Your task to perform on an android device: Search for the best way to get rid of a cold Image 0: 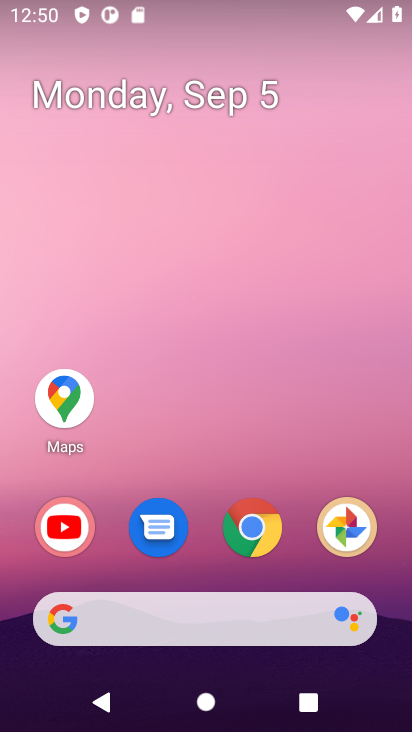
Step 0: drag from (185, 114) to (202, 7)
Your task to perform on an android device: Search for the best way to get rid of a cold Image 1: 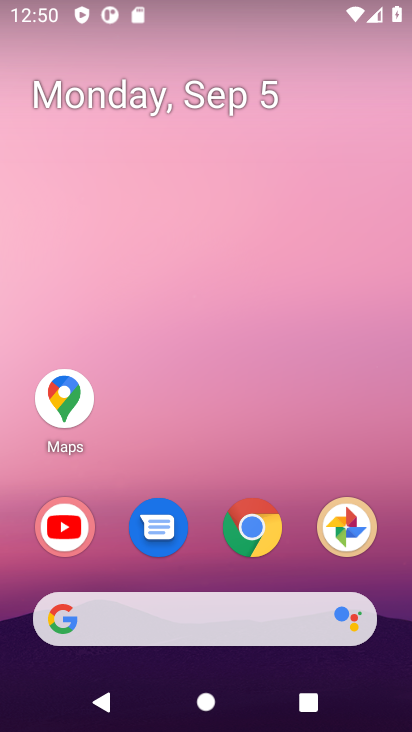
Step 1: click (273, 520)
Your task to perform on an android device: Search for the best way to get rid of a cold Image 2: 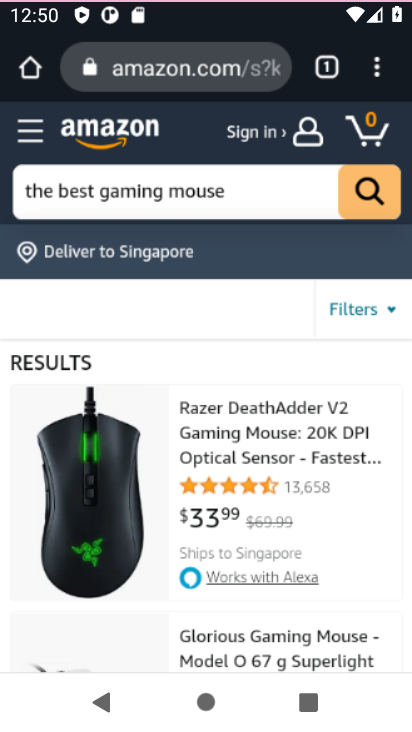
Step 2: click (138, 63)
Your task to perform on an android device: Search for the best way to get rid of a cold Image 3: 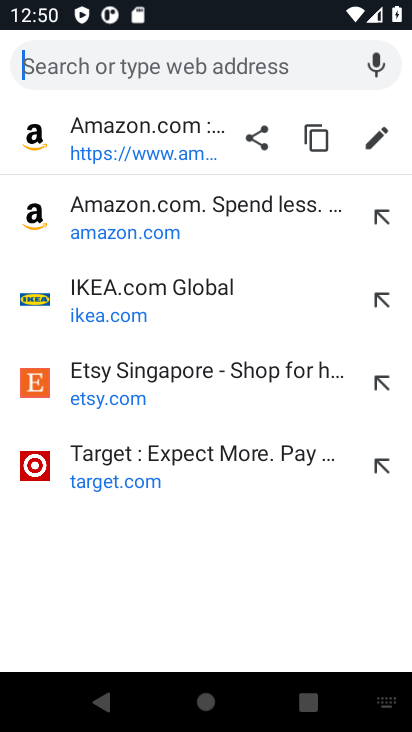
Step 3: type "the best way to get rid of a cold"
Your task to perform on an android device: Search for the best way to get rid of a cold Image 4: 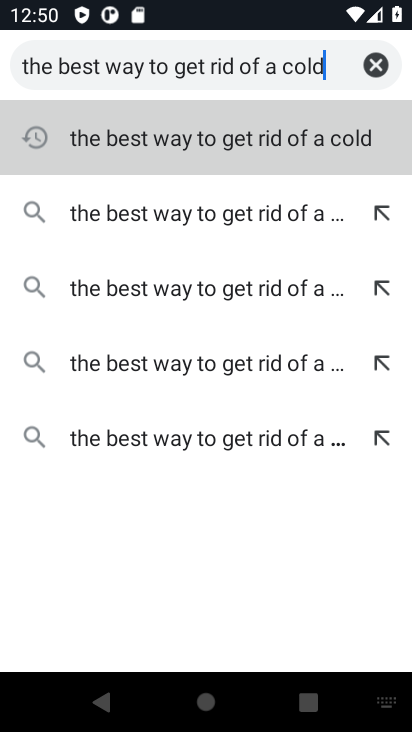
Step 4: click (253, 144)
Your task to perform on an android device: Search for the best way to get rid of a cold Image 5: 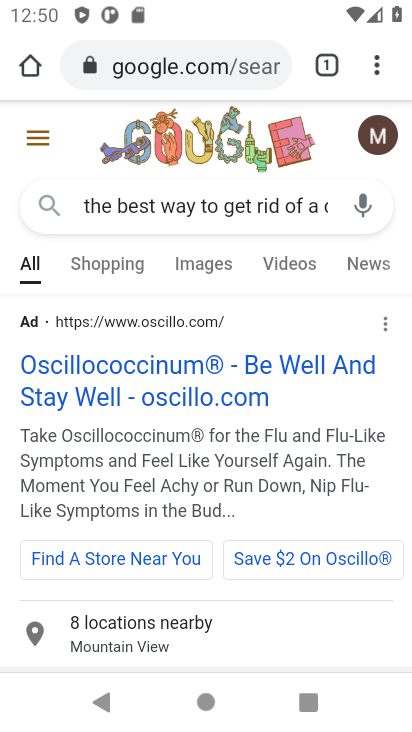
Step 5: task complete